Your task to perform on an android device: create a new album in the google photos Image 0: 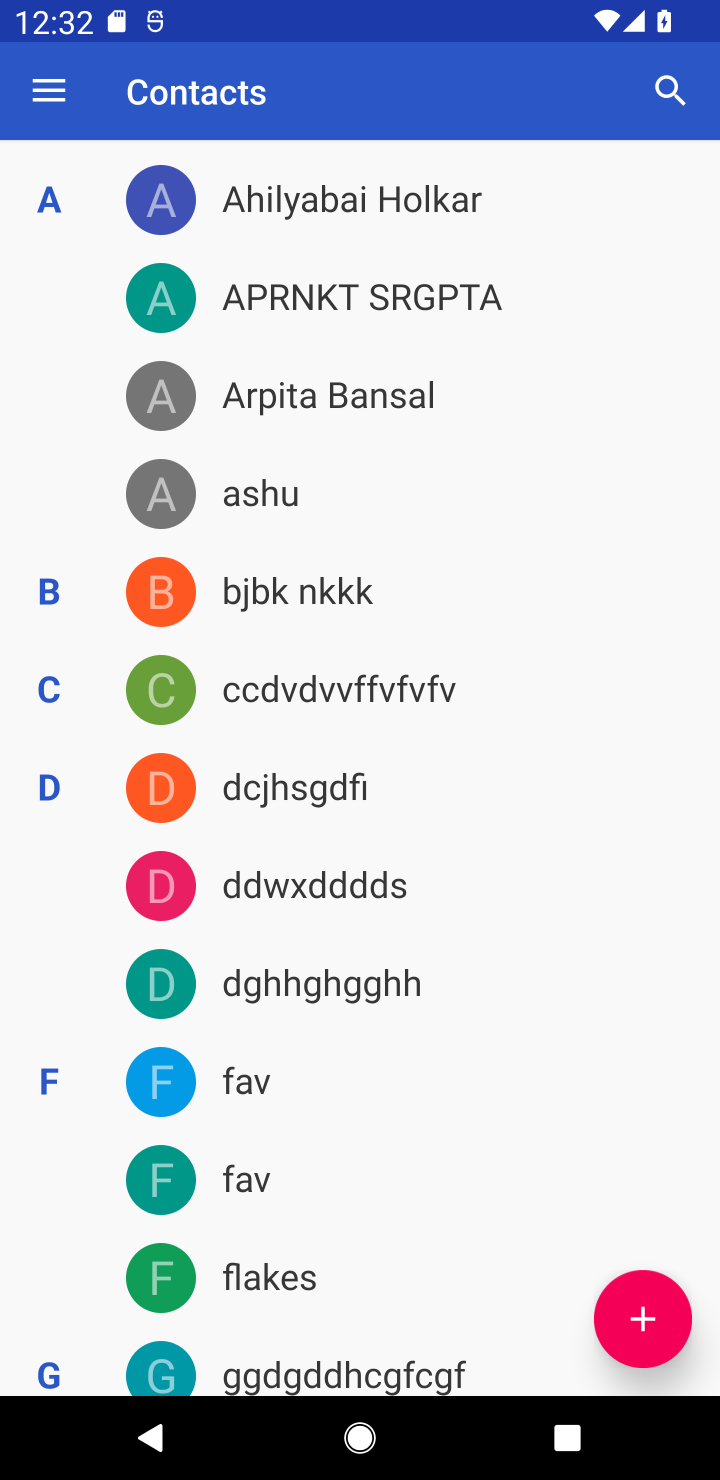
Step 0: drag from (360, 1345) to (465, 388)
Your task to perform on an android device: create a new album in the google photos Image 1: 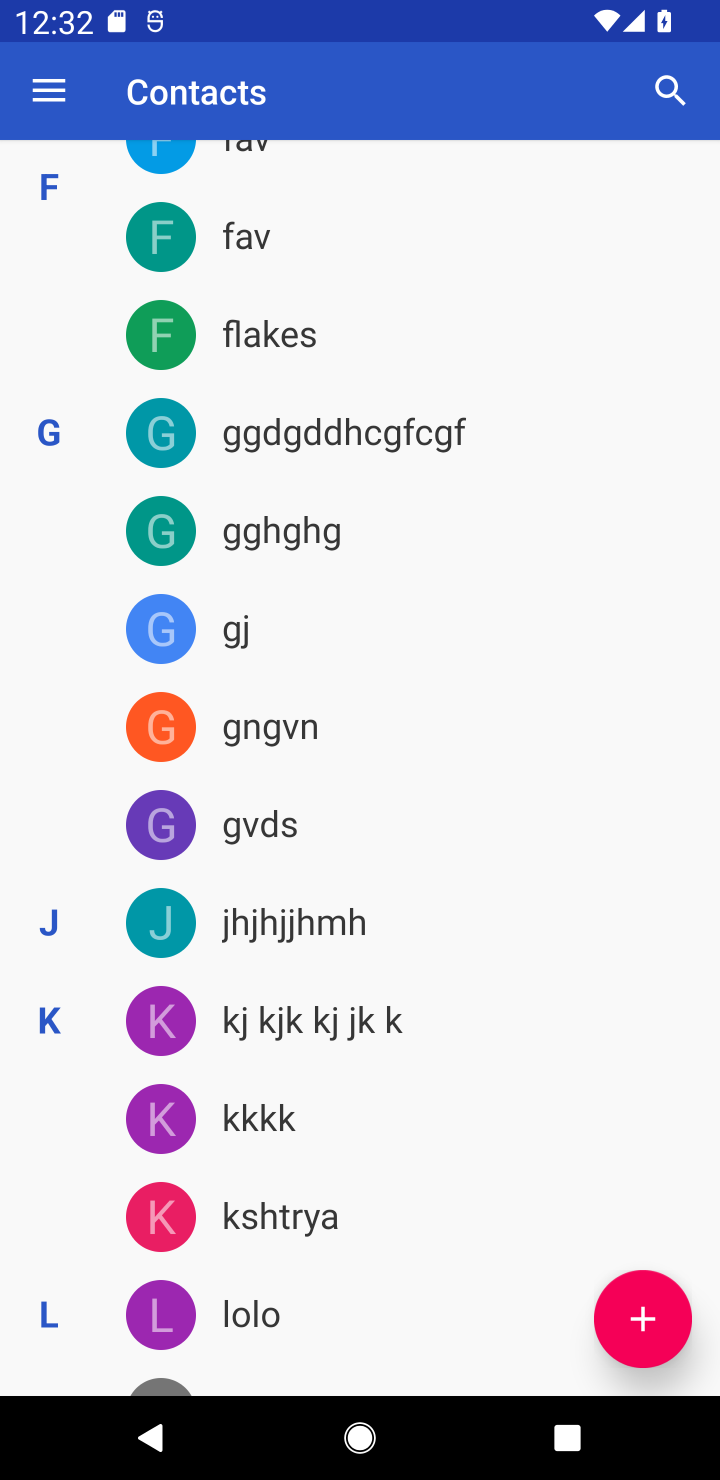
Step 1: drag from (391, 1384) to (471, 154)
Your task to perform on an android device: create a new album in the google photos Image 2: 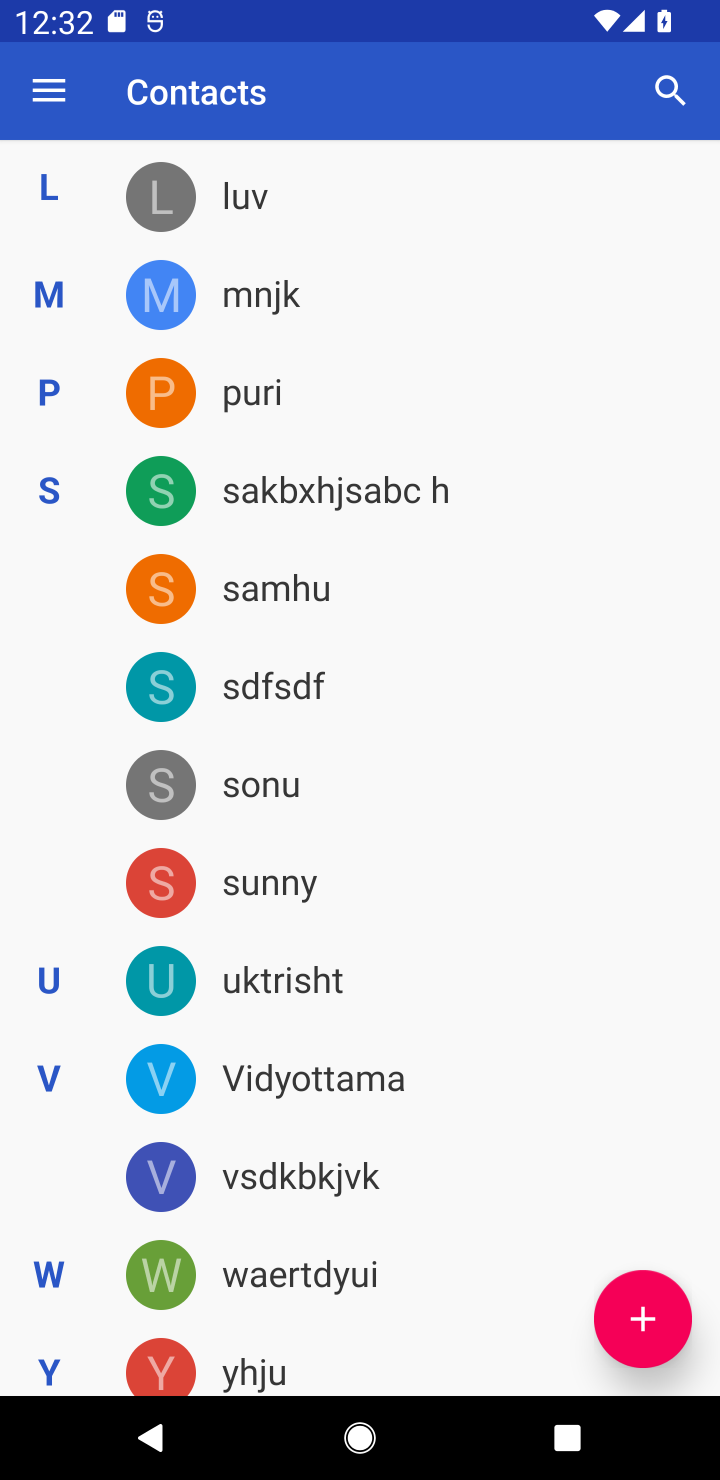
Step 2: click (141, 1451)
Your task to perform on an android device: create a new album in the google photos Image 3: 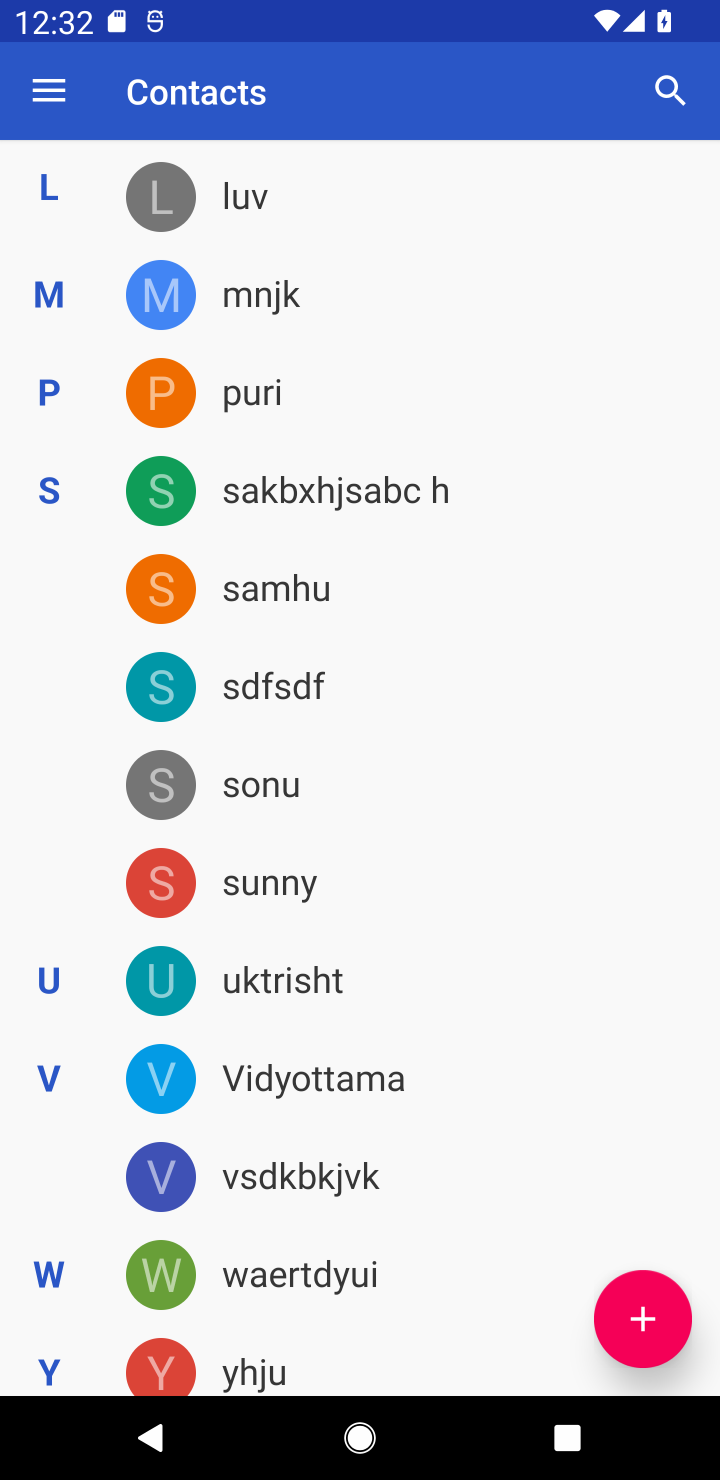
Step 3: click (152, 1426)
Your task to perform on an android device: create a new album in the google photos Image 4: 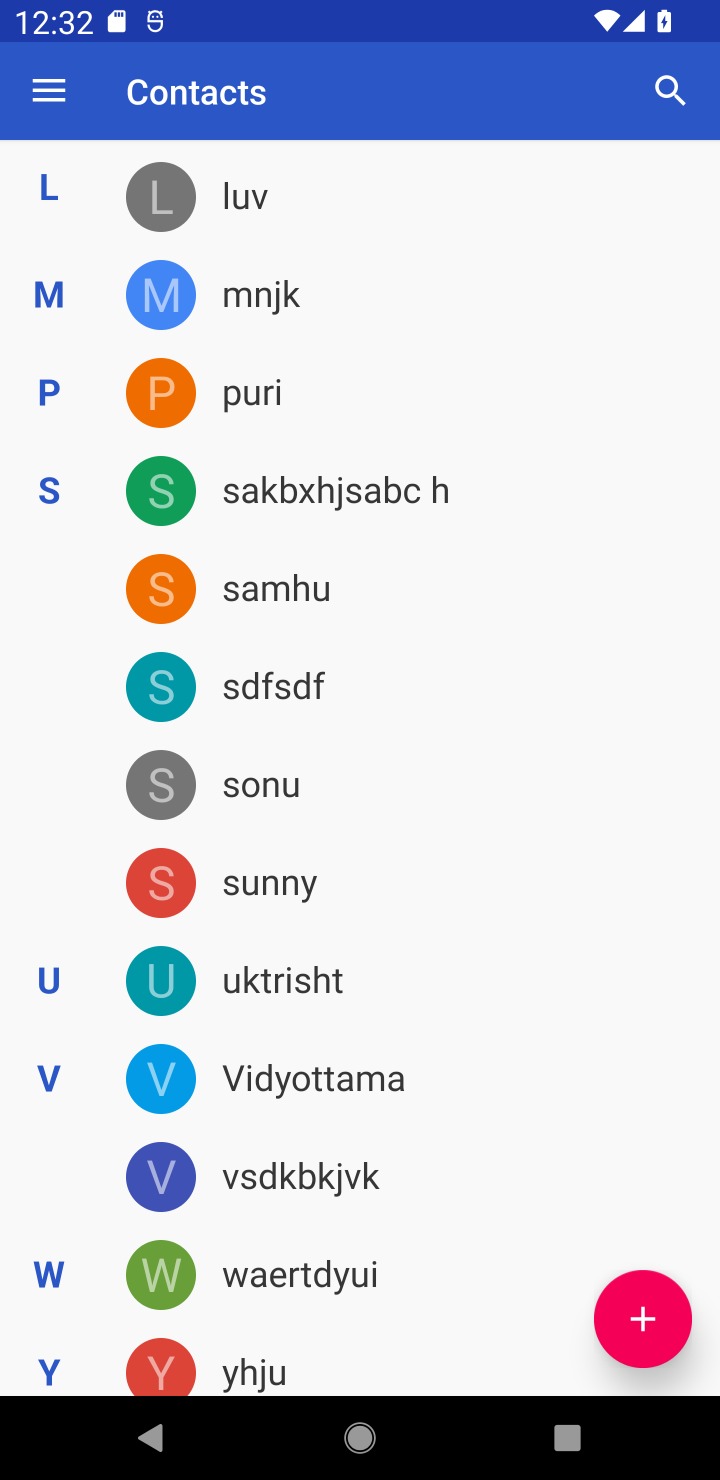
Step 4: press home button
Your task to perform on an android device: create a new album in the google photos Image 5: 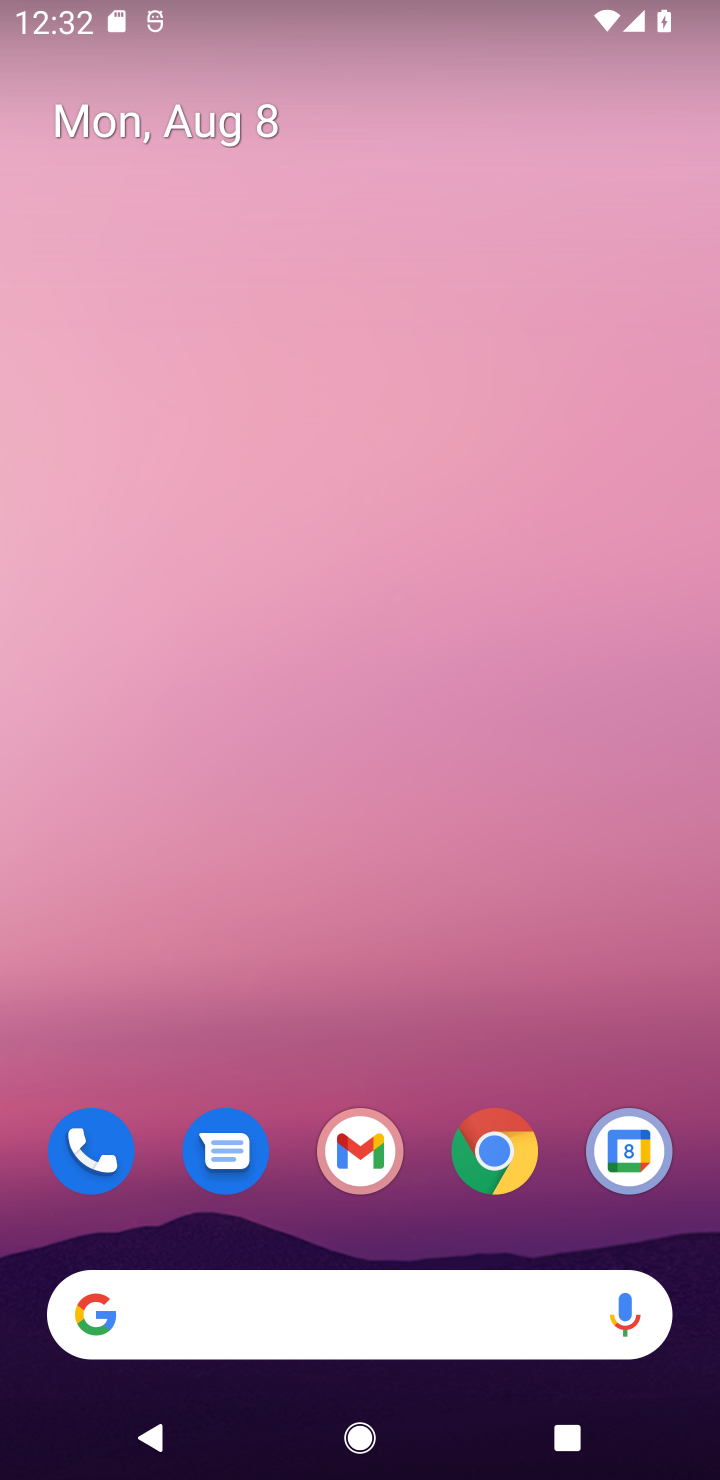
Step 5: drag from (348, 1253) to (373, 473)
Your task to perform on an android device: create a new album in the google photos Image 6: 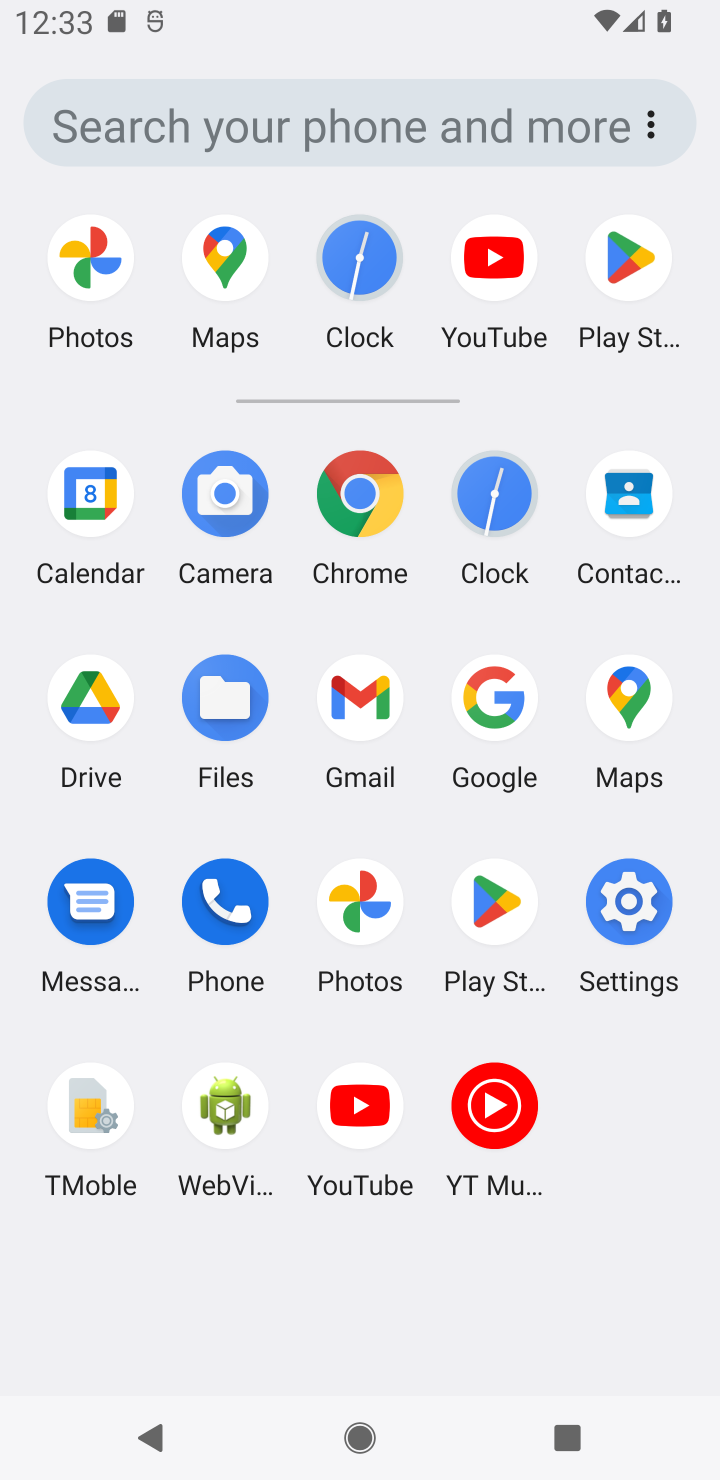
Step 6: click (346, 882)
Your task to perform on an android device: create a new album in the google photos Image 7: 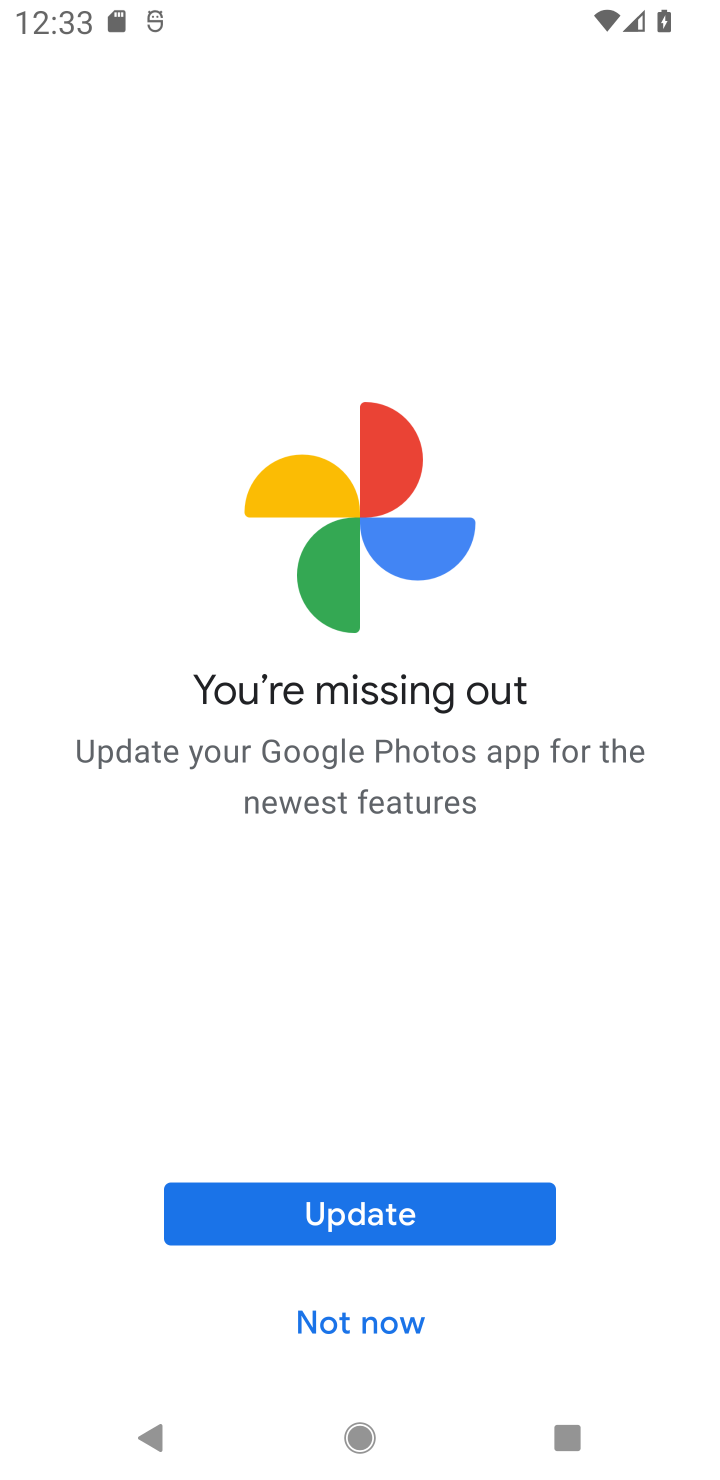
Step 7: click (351, 1303)
Your task to perform on an android device: create a new album in the google photos Image 8: 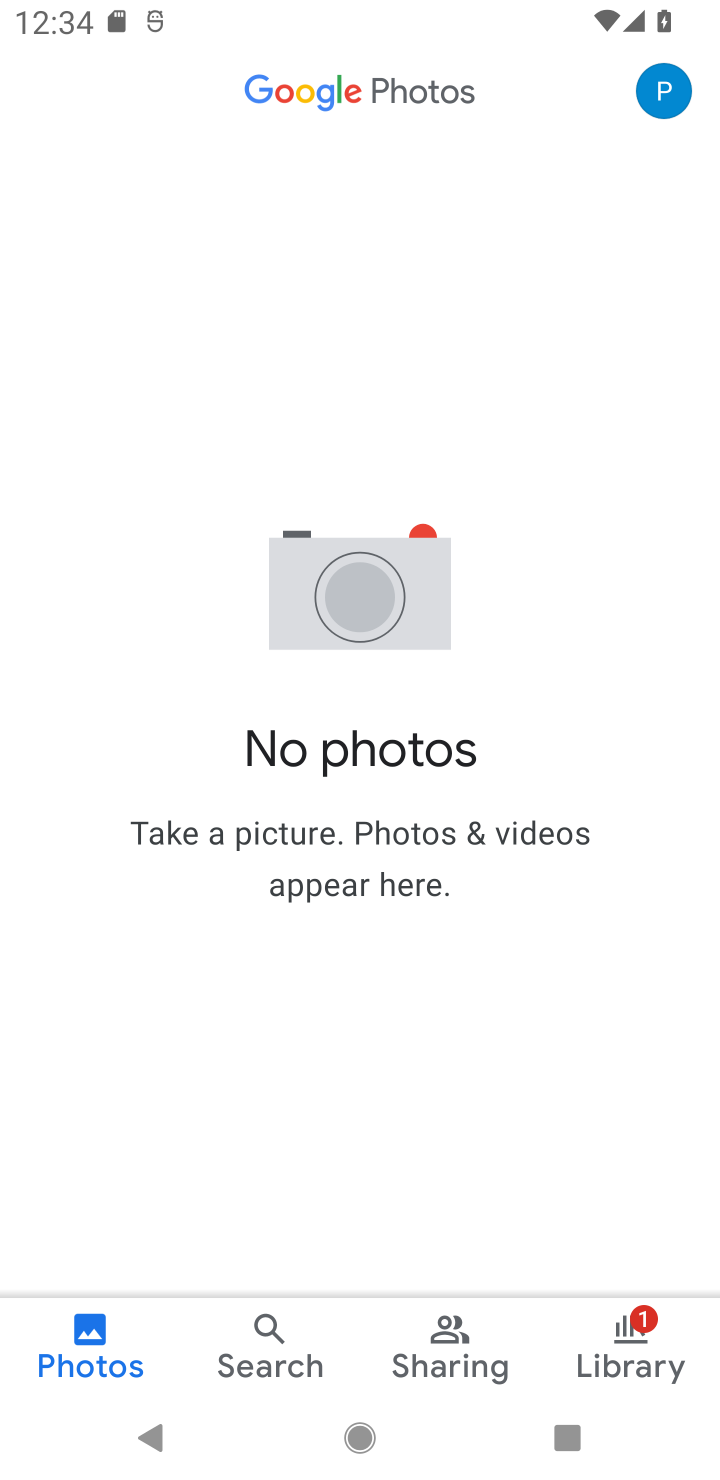
Step 8: task complete